Your task to perform on an android device: turn off location Image 0: 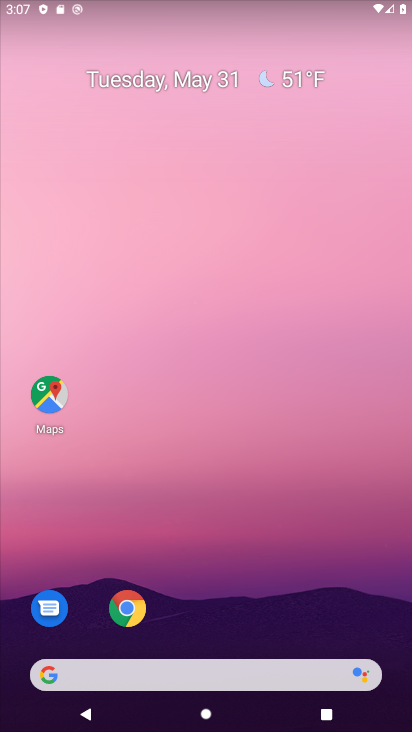
Step 0: drag from (187, 598) to (183, 57)
Your task to perform on an android device: turn off location Image 1: 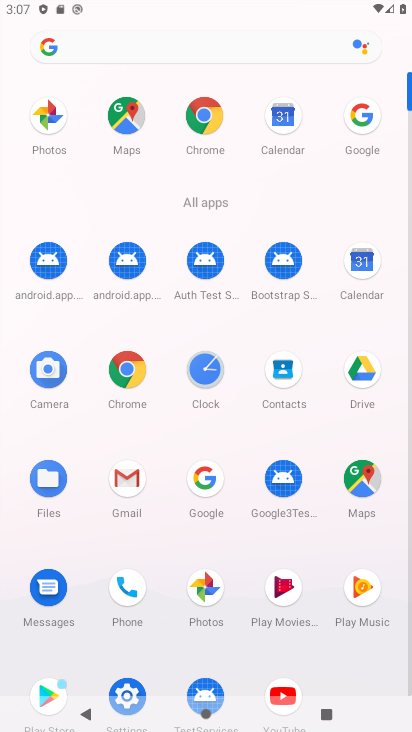
Step 1: drag from (142, 655) to (128, 312)
Your task to perform on an android device: turn off location Image 2: 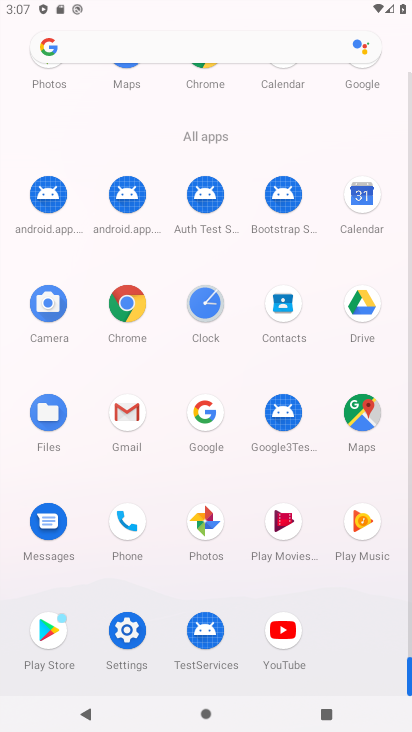
Step 2: click (131, 628)
Your task to perform on an android device: turn off location Image 3: 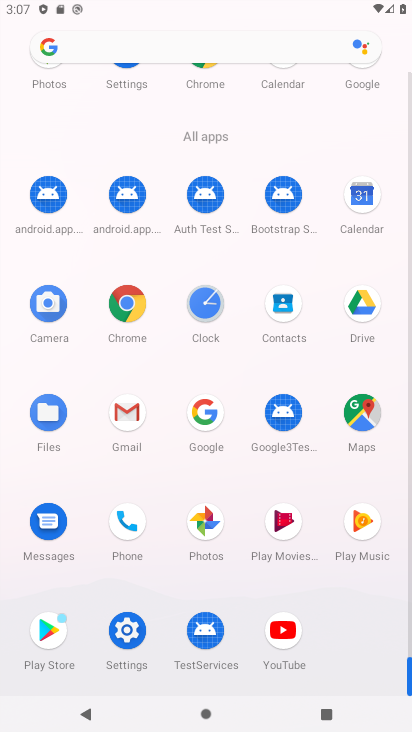
Step 3: click (115, 634)
Your task to perform on an android device: turn off location Image 4: 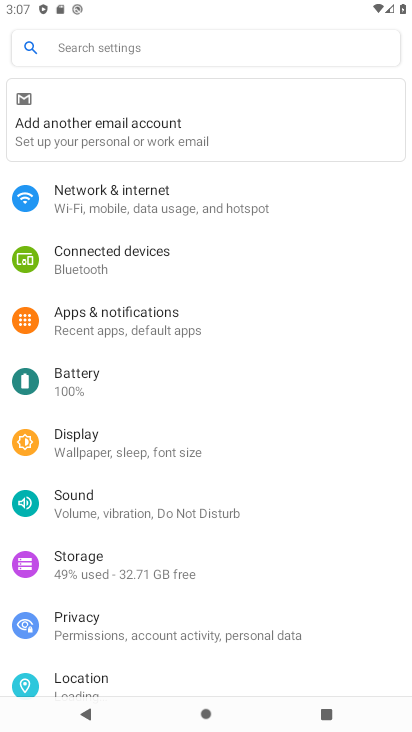
Step 4: click (72, 686)
Your task to perform on an android device: turn off location Image 5: 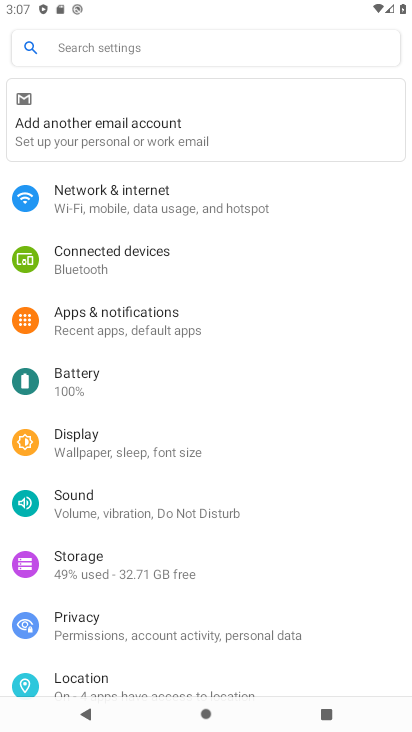
Step 5: drag from (163, 642) to (162, 197)
Your task to perform on an android device: turn off location Image 6: 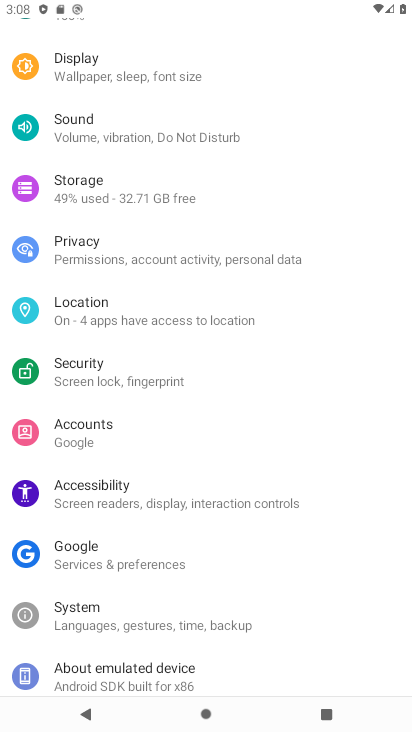
Step 6: click (100, 322)
Your task to perform on an android device: turn off location Image 7: 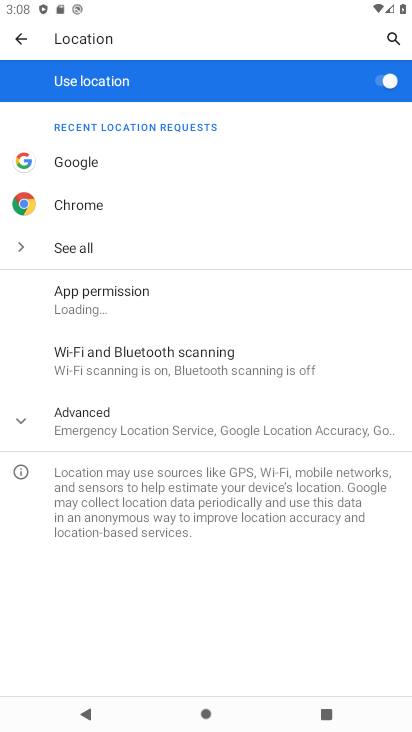
Step 7: click (378, 88)
Your task to perform on an android device: turn off location Image 8: 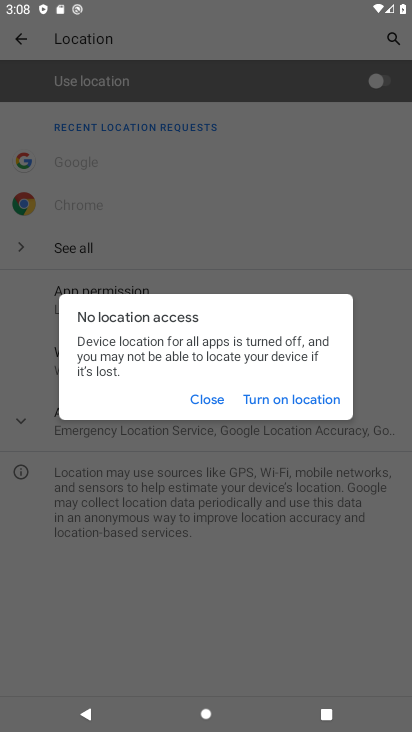
Step 8: task complete